Your task to perform on an android device: Go to Amazon Image 0: 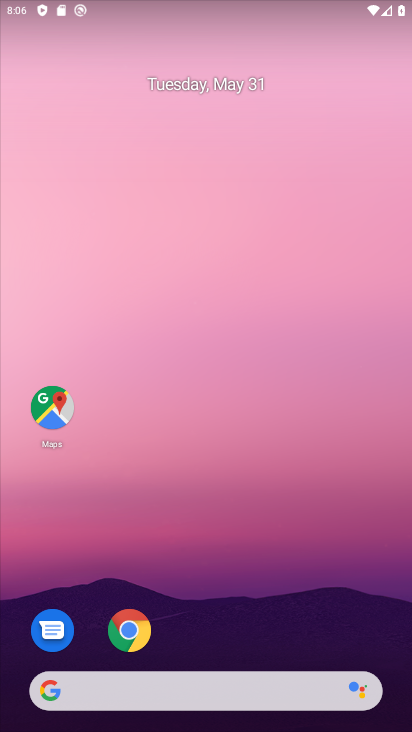
Step 0: click (177, 682)
Your task to perform on an android device: Go to Amazon Image 1: 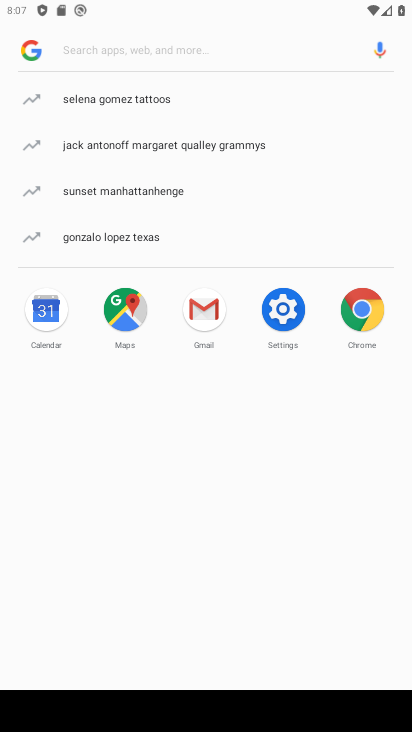
Step 1: type " Amazon"
Your task to perform on an android device: Go to Amazon Image 2: 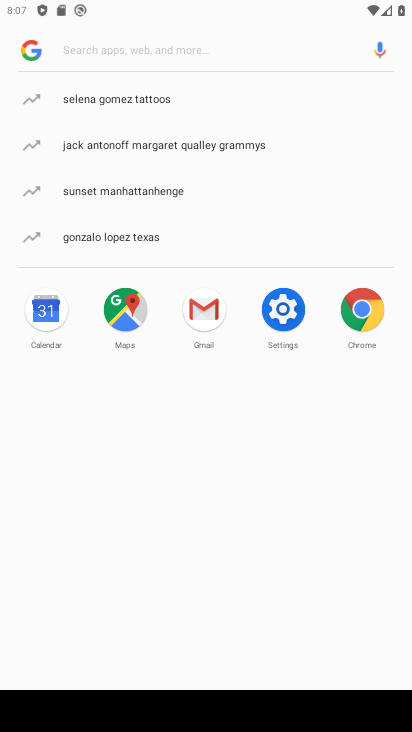
Step 2: click (197, 54)
Your task to perform on an android device: Go to Amazon Image 3: 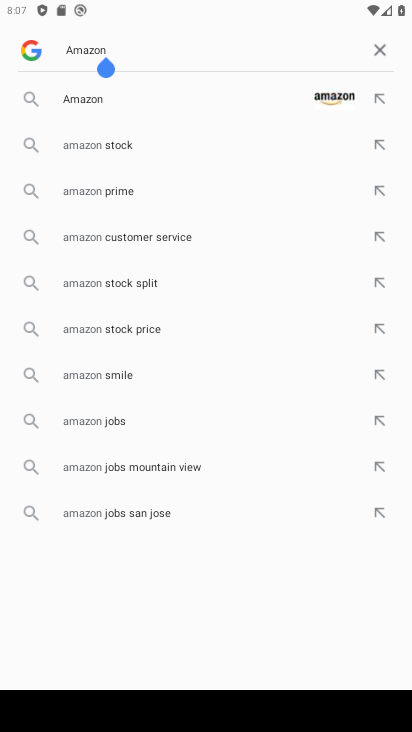
Step 3: click (107, 103)
Your task to perform on an android device: Go to Amazon Image 4: 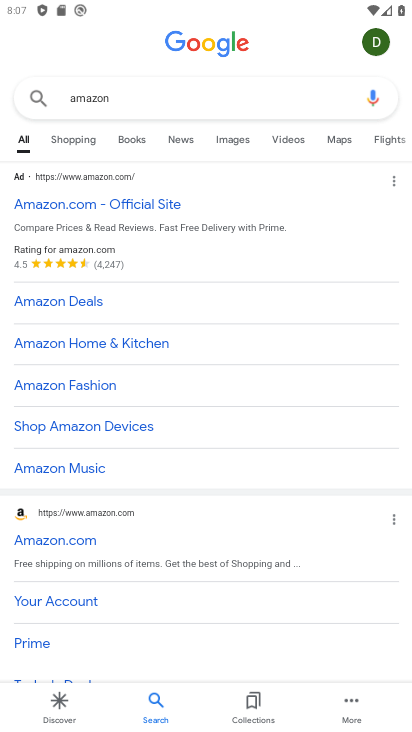
Step 4: click (78, 545)
Your task to perform on an android device: Go to Amazon Image 5: 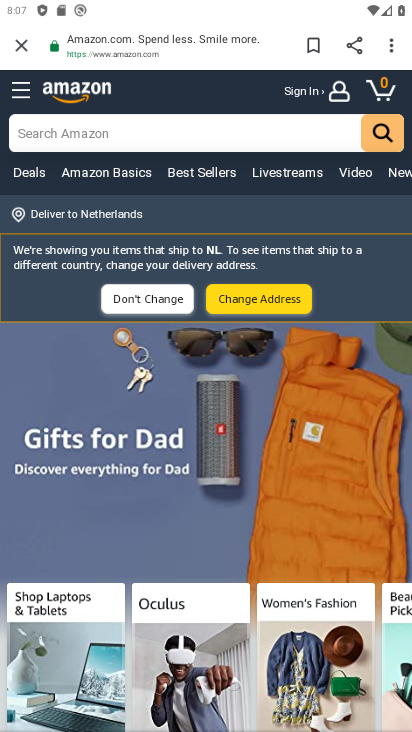
Step 5: task complete